Your task to perform on an android device: Go to internet settings Image 0: 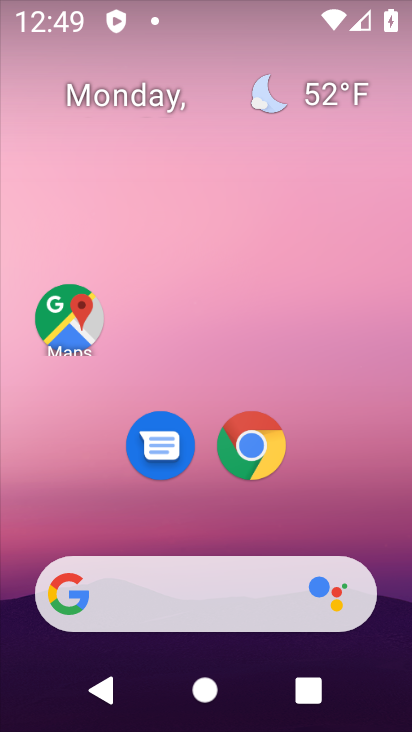
Step 0: drag from (363, 434) to (361, 89)
Your task to perform on an android device: Go to internet settings Image 1: 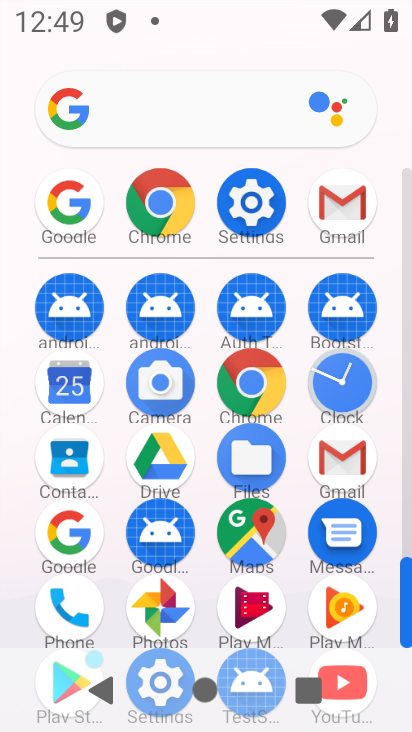
Step 1: click (248, 198)
Your task to perform on an android device: Go to internet settings Image 2: 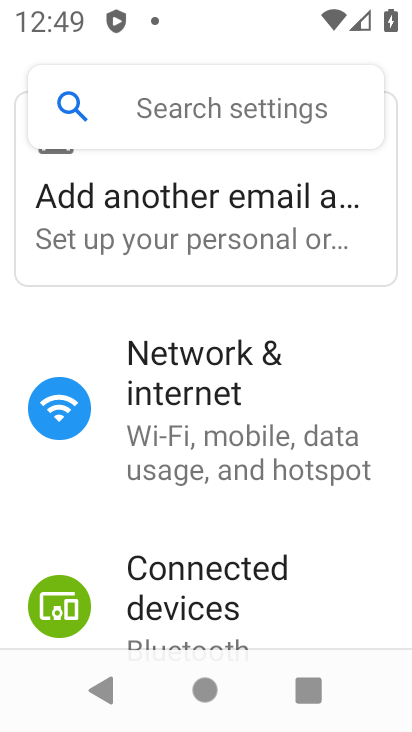
Step 2: drag from (350, 561) to (309, 173)
Your task to perform on an android device: Go to internet settings Image 3: 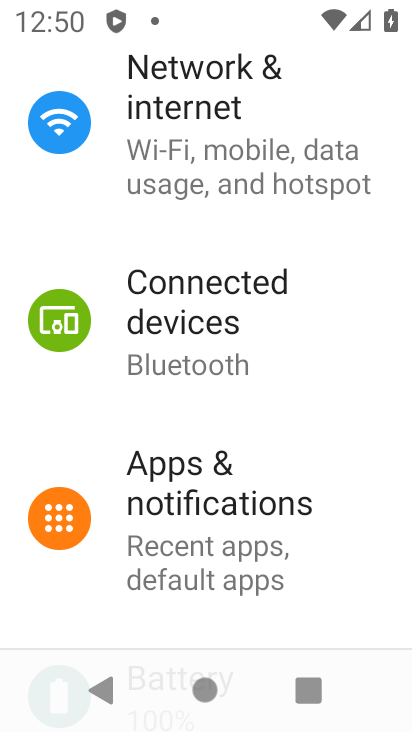
Step 3: drag from (314, 561) to (315, 263)
Your task to perform on an android device: Go to internet settings Image 4: 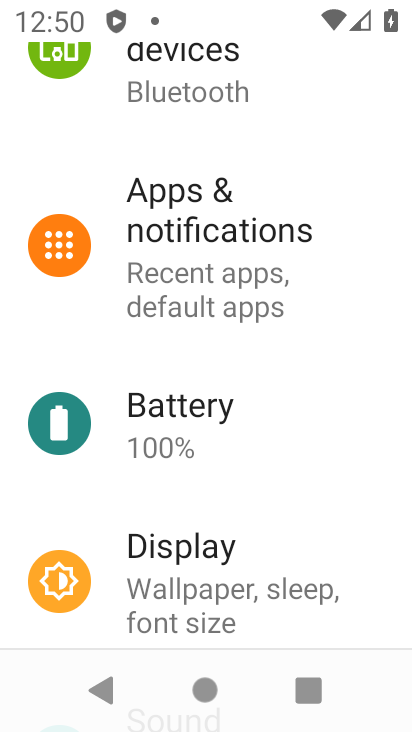
Step 4: drag from (347, 603) to (351, 209)
Your task to perform on an android device: Go to internet settings Image 5: 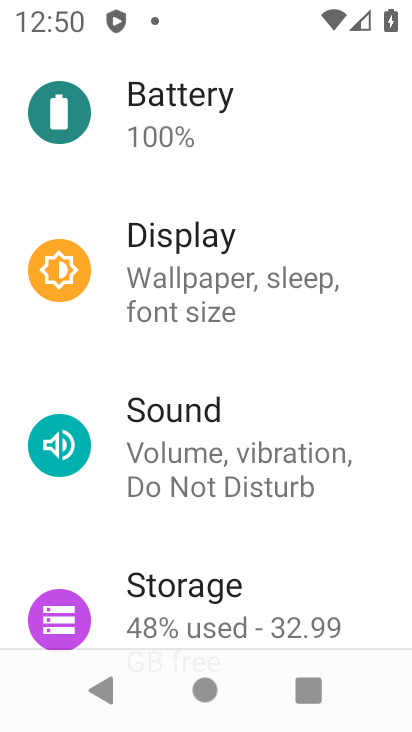
Step 5: drag from (345, 102) to (370, 622)
Your task to perform on an android device: Go to internet settings Image 6: 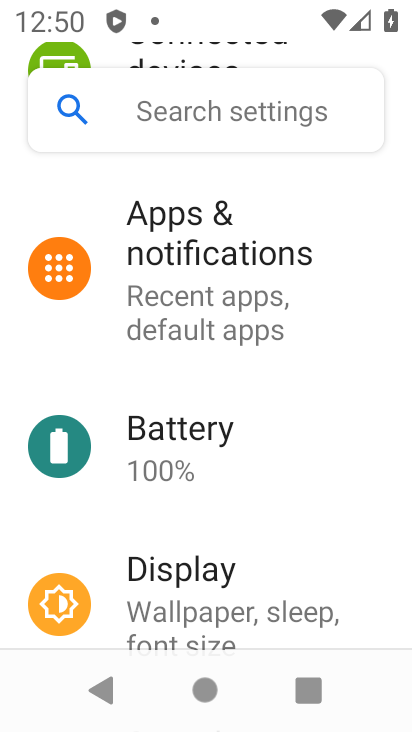
Step 6: drag from (354, 276) to (379, 617)
Your task to perform on an android device: Go to internet settings Image 7: 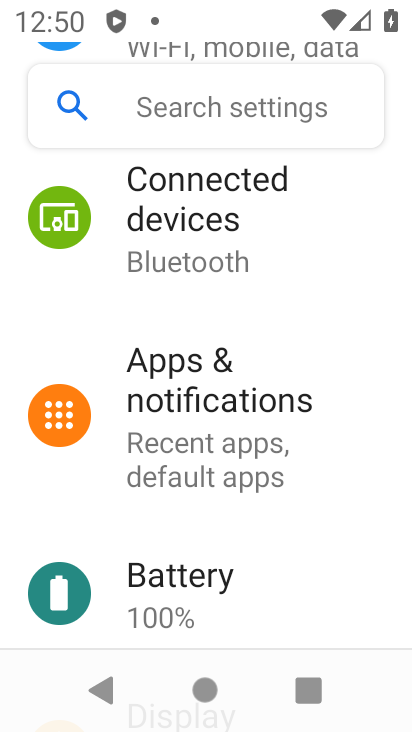
Step 7: drag from (337, 238) to (378, 607)
Your task to perform on an android device: Go to internet settings Image 8: 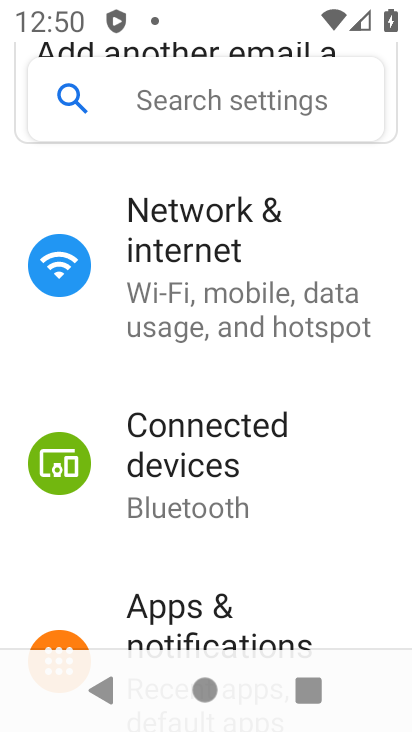
Step 8: click (238, 282)
Your task to perform on an android device: Go to internet settings Image 9: 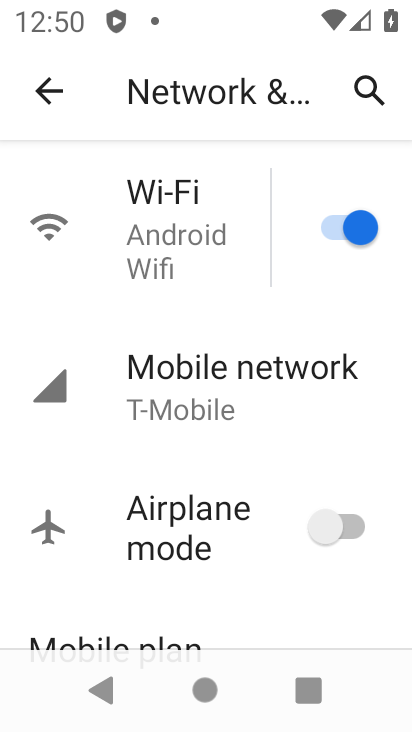
Step 9: click (198, 387)
Your task to perform on an android device: Go to internet settings Image 10: 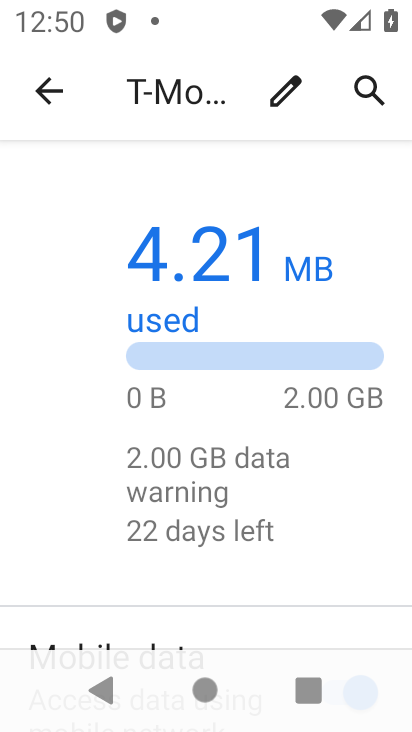
Step 10: task complete